Your task to perform on an android device: set an alarm Image 0: 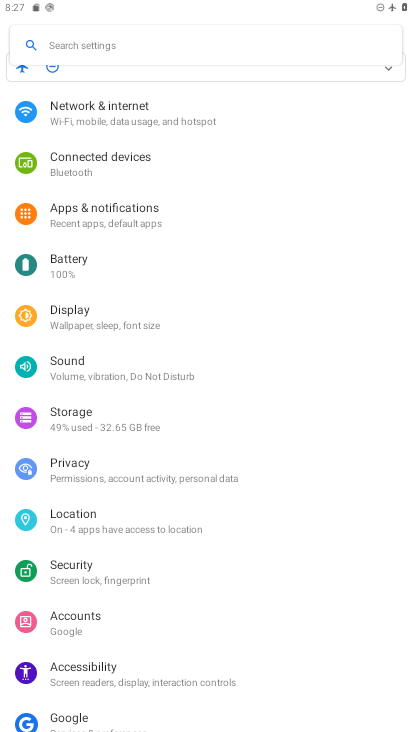
Step 0: press home button
Your task to perform on an android device: set an alarm Image 1: 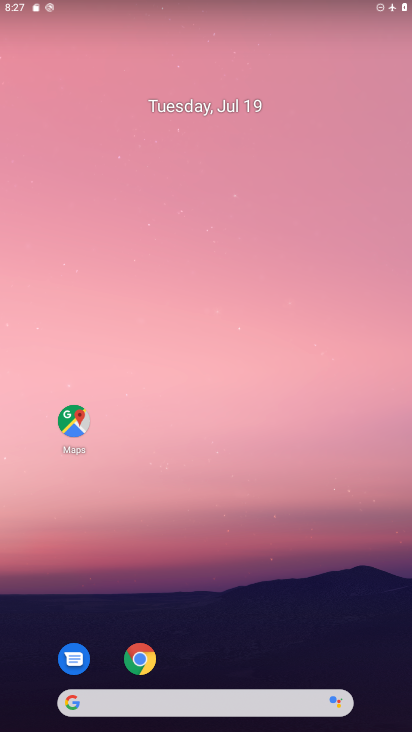
Step 1: drag from (174, 660) to (208, 202)
Your task to perform on an android device: set an alarm Image 2: 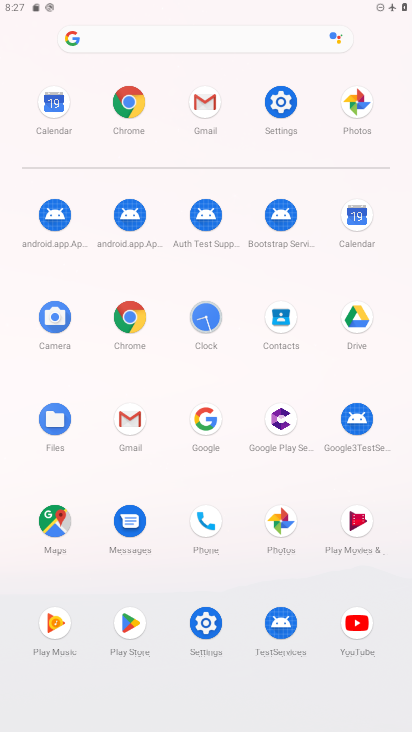
Step 2: click (208, 309)
Your task to perform on an android device: set an alarm Image 3: 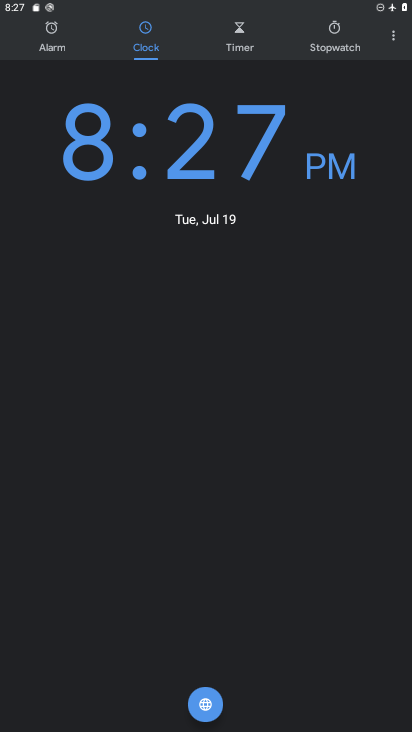
Step 3: click (51, 37)
Your task to perform on an android device: set an alarm Image 4: 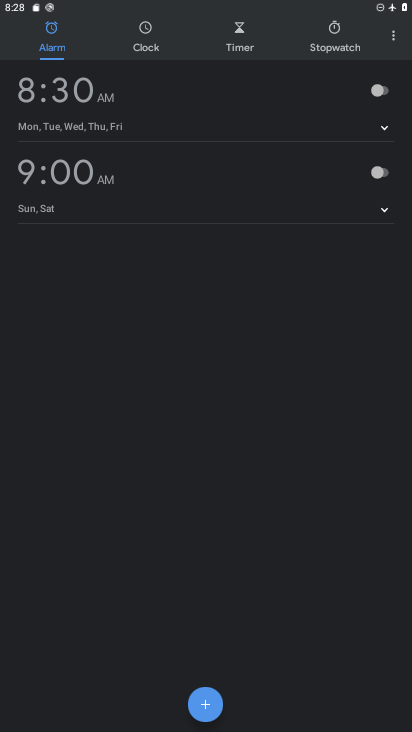
Step 4: click (388, 86)
Your task to perform on an android device: set an alarm Image 5: 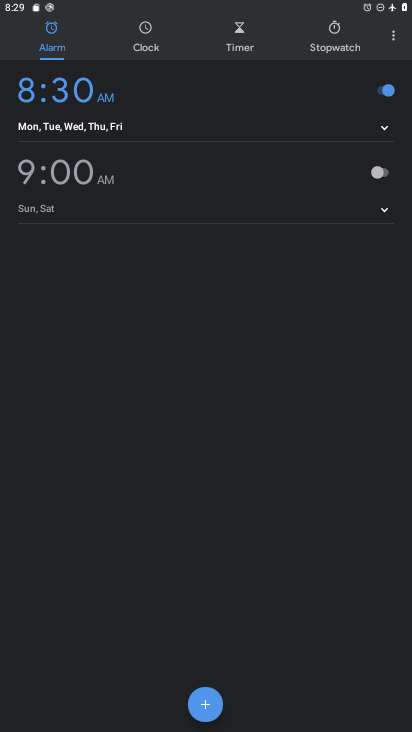
Step 5: task complete